Your task to perform on an android device: turn off javascript in the chrome app Image 0: 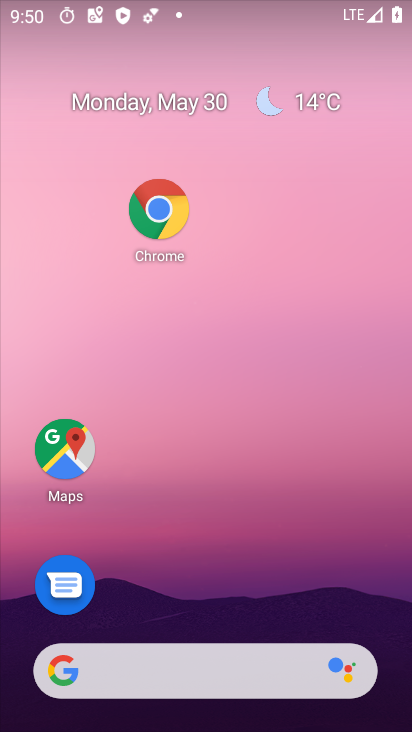
Step 0: drag from (165, 600) to (401, 192)
Your task to perform on an android device: turn off javascript in the chrome app Image 1: 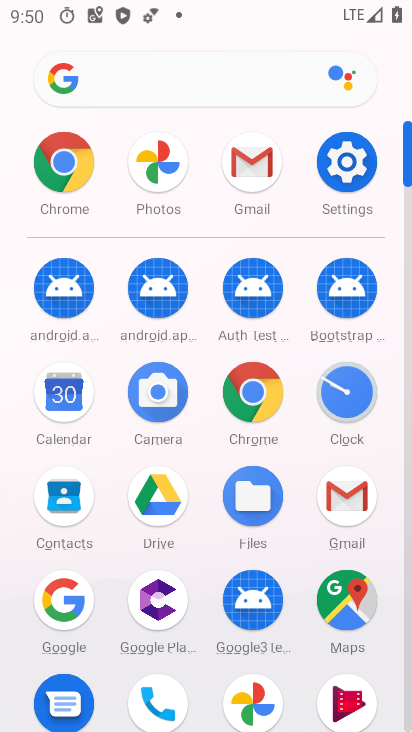
Step 1: click (247, 392)
Your task to perform on an android device: turn off javascript in the chrome app Image 2: 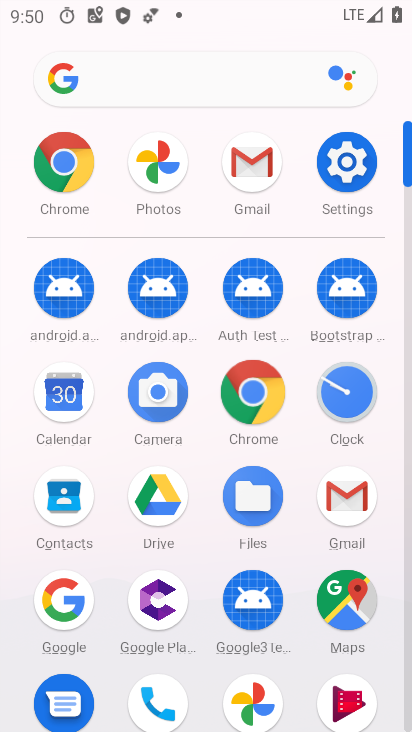
Step 2: click (246, 391)
Your task to perform on an android device: turn off javascript in the chrome app Image 3: 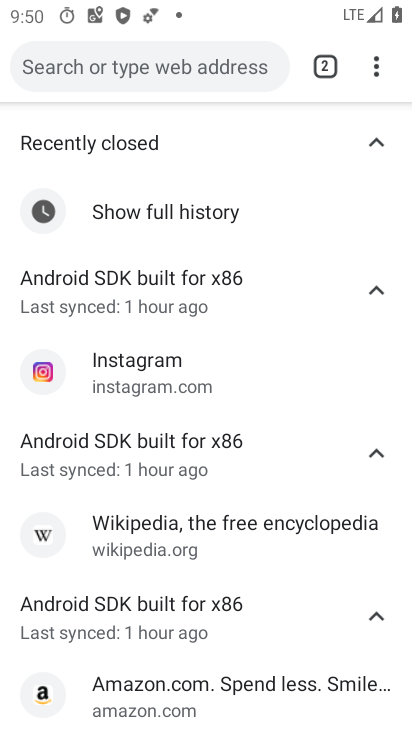
Step 3: drag from (370, 62) to (185, 559)
Your task to perform on an android device: turn off javascript in the chrome app Image 4: 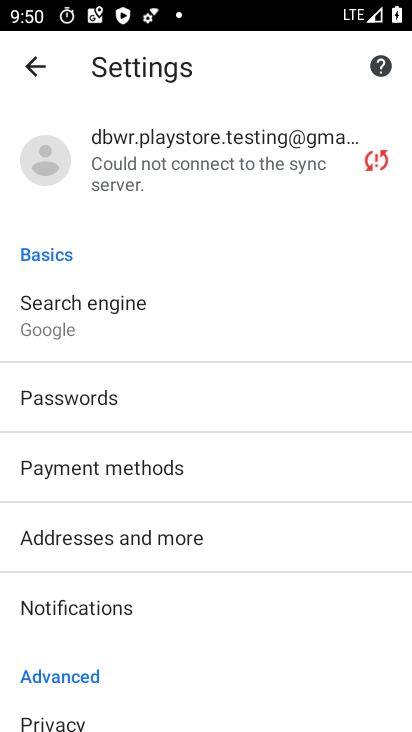
Step 4: drag from (203, 489) to (255, 37)
Your task to perform on an android device: turn off javascript in the chrome app Image 5: 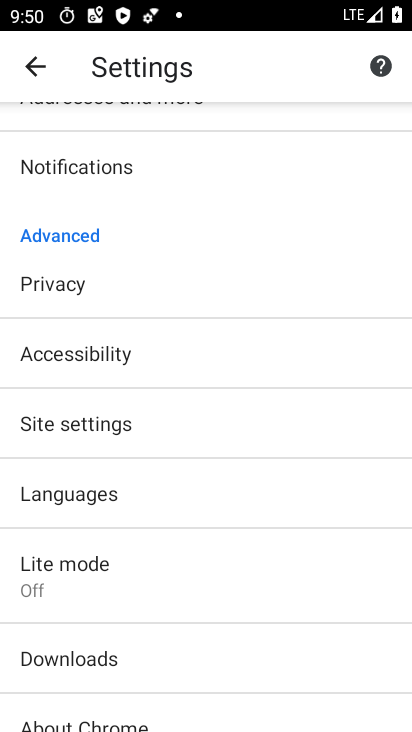
Step 5: click (122, 421)
Your task to perform on an android device: turn off javascript in the chrome app Image 6: 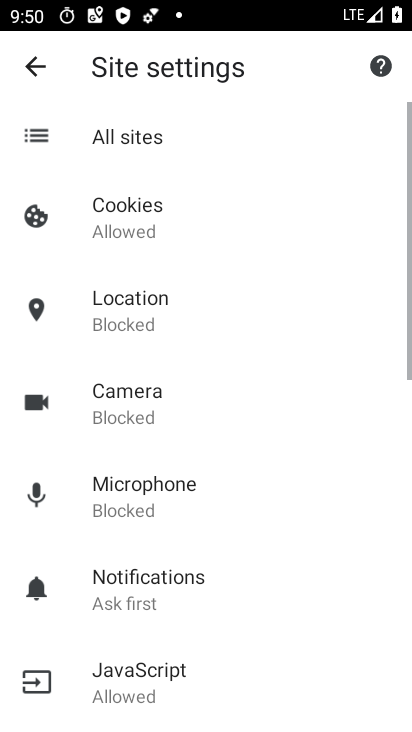
Step 6: drag from (189, 563) to (277, 138)
Your task to perform on an android device: turn off javascript in the chrome app Image 7: 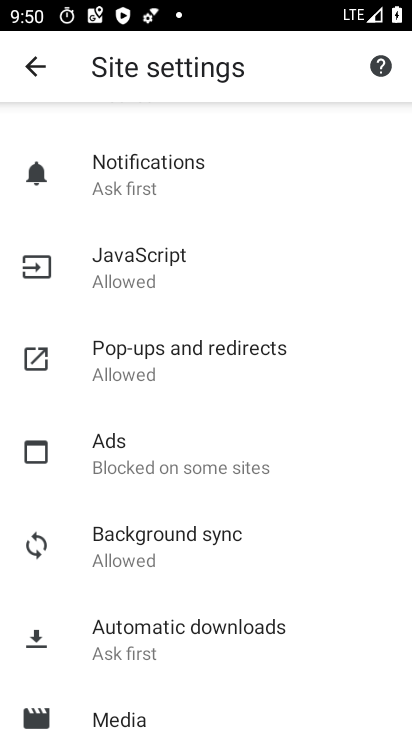
Step 7: click (183, 262)
Your task to perform on an android device: turn off javascript in the chrome app Image 8: 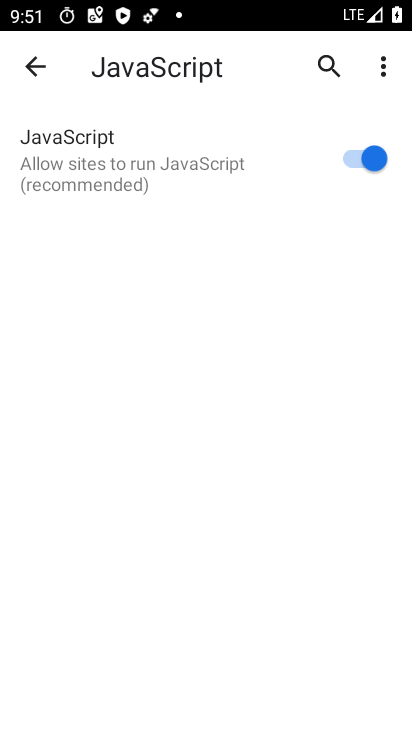
Step 8: click (379, 158)
Your task to perform on an android device: turn off javascript in the chrome app Image 9: 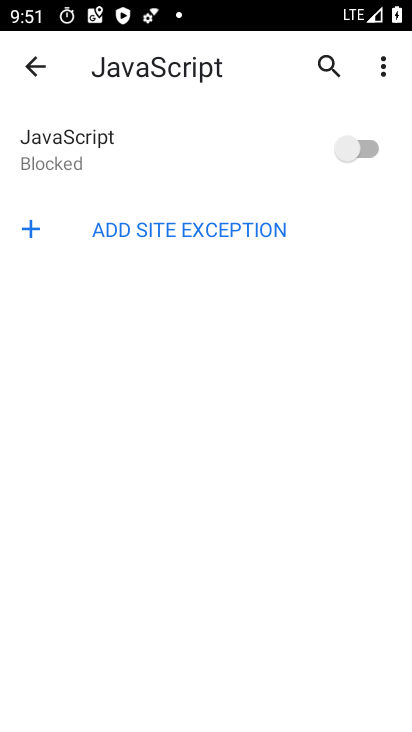
Step 9: task complete